Your task to perform on an android device: open a bookmark in the chrome app Image 0: 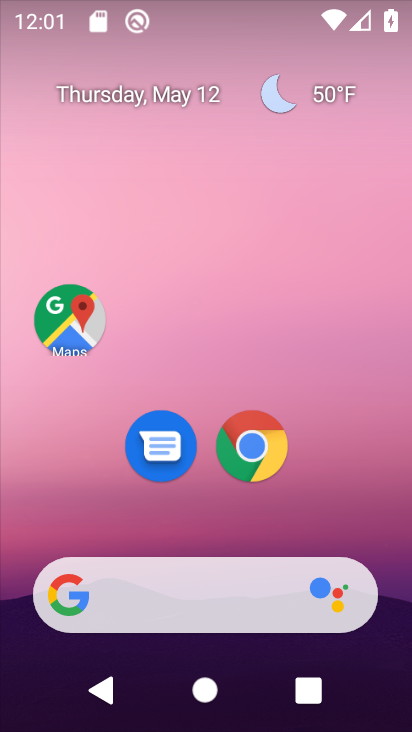
Step 0: click (262, 452)
Your task to perform on an android device: open a bookmark in the chrome app Image 1: 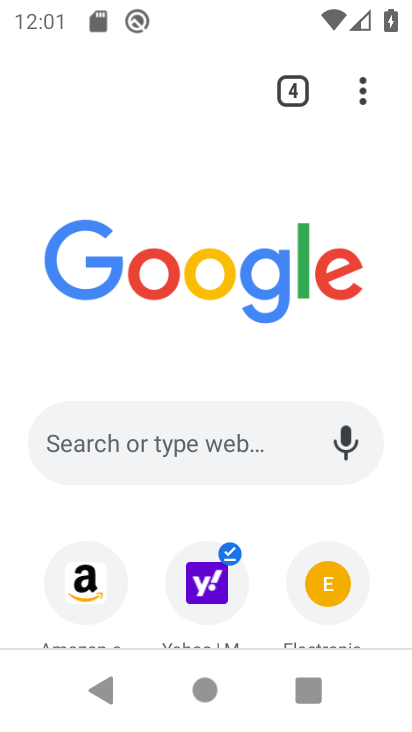
Step 1: click (372, 87)
Your task to perform on an android device: open a bookmark in the chrome app Image 2: 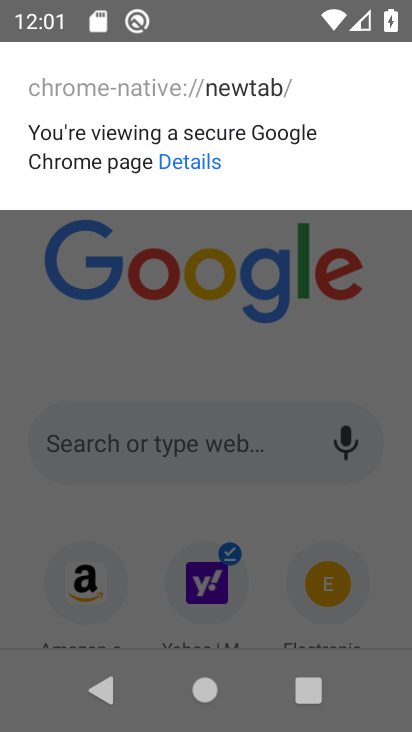
Step 2: click (362, 303)
Your task to perform on an android device: open a bookmark in the chrome app Image 3: 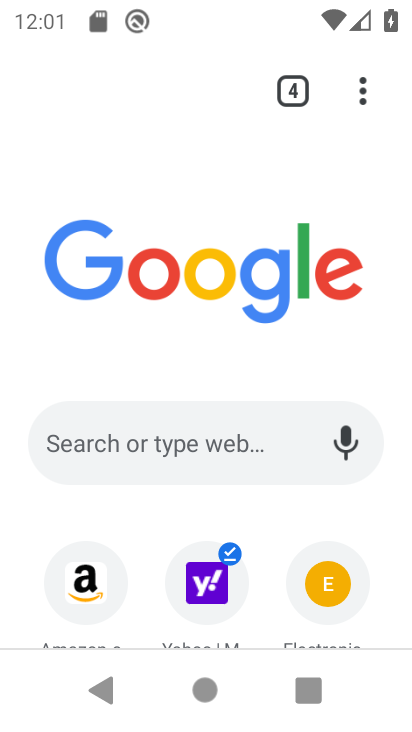
Step 3: click (357, 102)
Your task to perform on an android device: open a bookmark in the chrome app Image 4: 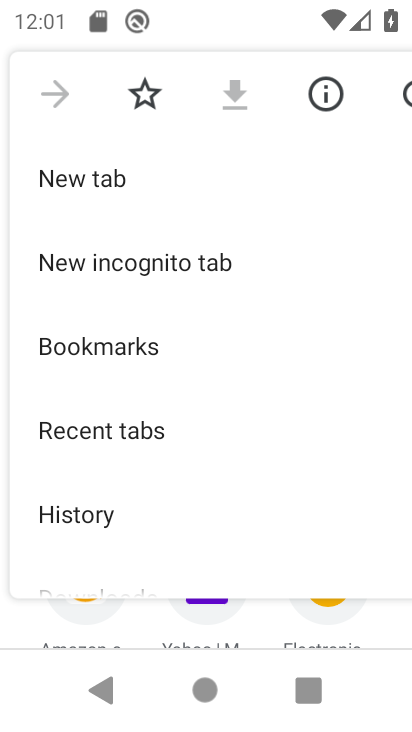
Step 4: click (124, 349)
Your task to perform on an android device: open a bookmark in the chrome app Image 5: 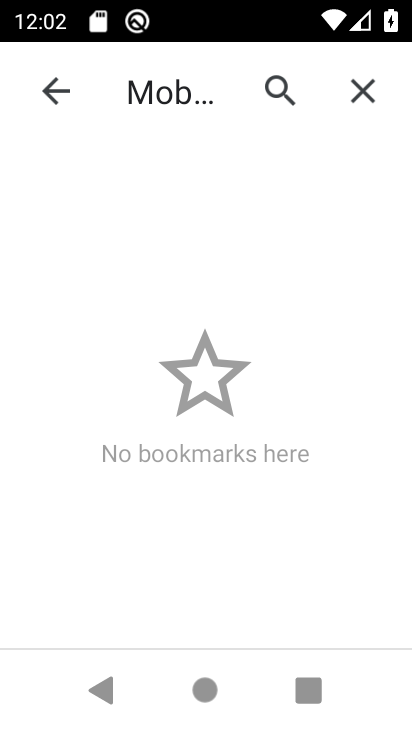
Step 5: task complete